Your task to perform on an android device: Go to Yahoo.com Image 0: 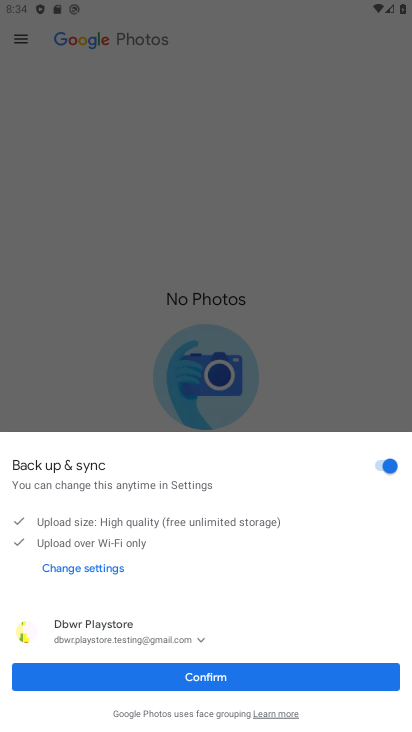
Step 0: press home button
Your task to perform on an android device: Go to Yahoo.com Image 1: 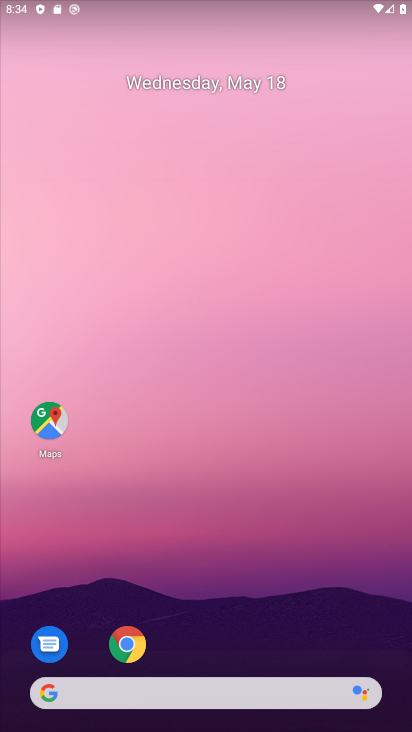
Step 1: click (228, 701)
Your task to perform on an android device: Go to Yahoo.com Image 2: 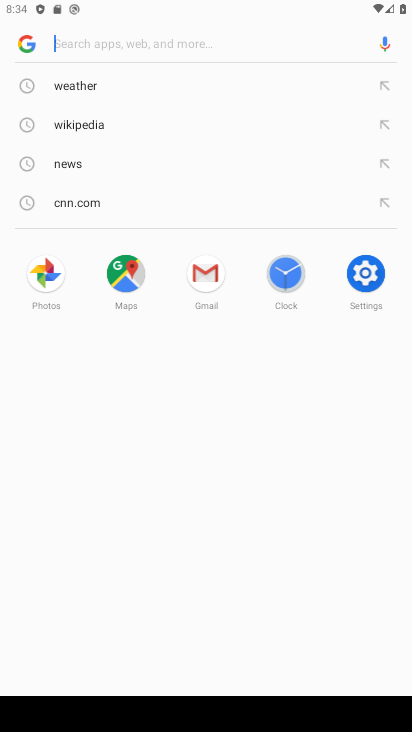
Step 2: type "Yahoo.com"
Your task to perform on an android device: Go to Yahoo.com Image 3: 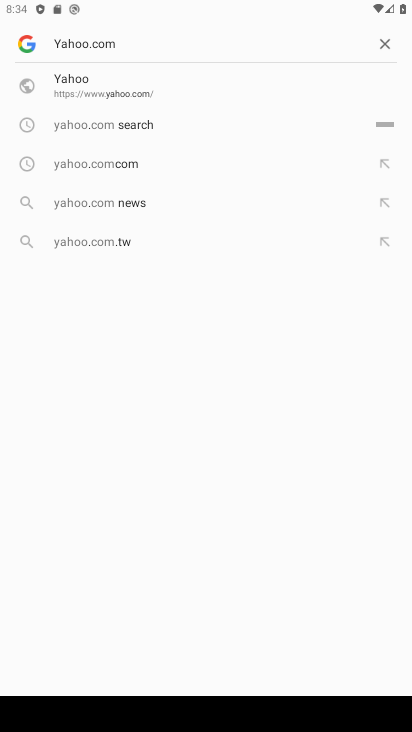
Step 3: click (122, 88)
Your task to perform on an android device: Go to Yahoo.com Image 4: 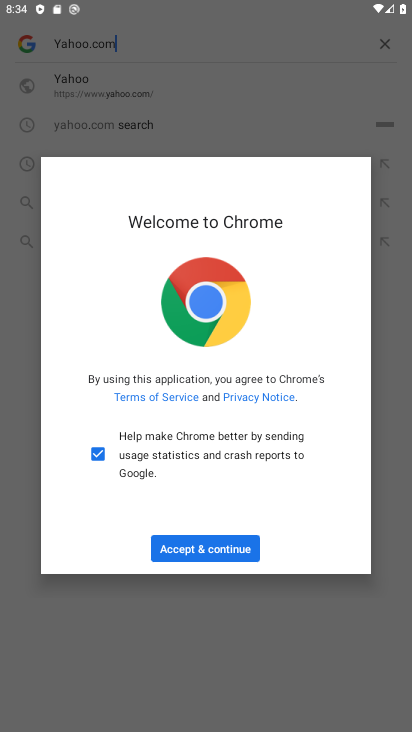
Step 4: click (197, 555)
Your task to perform on an android device: Go to Yahoo.com Image 5: 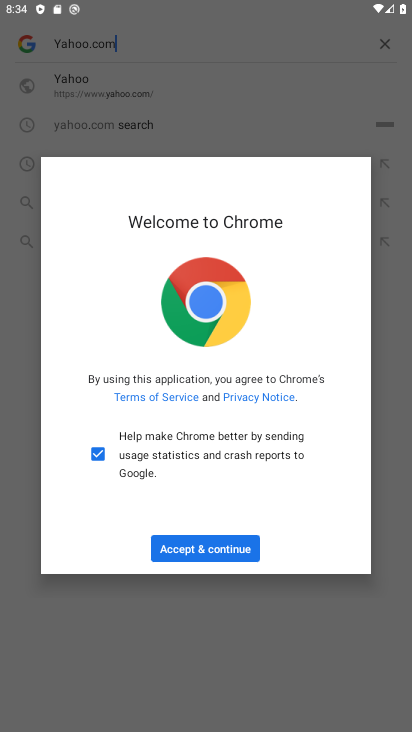
Step 5: click (197, 555)
Your task to perform on an android device: Go to Yahoo.com Image 6: 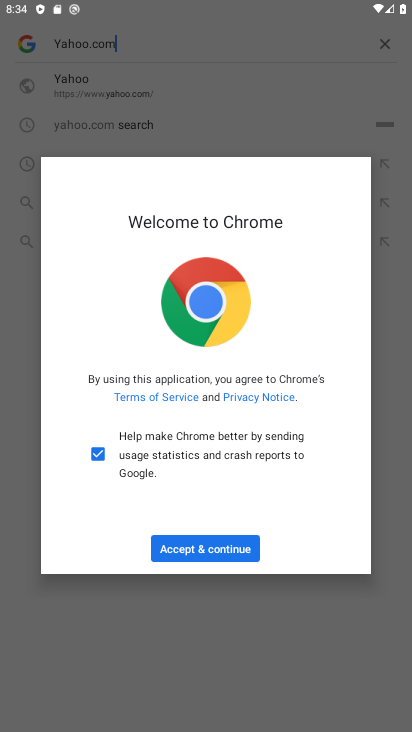
Step 6: click (197, 555)
Your task to perform on an android device: Go to Yahoo.com Image 7: 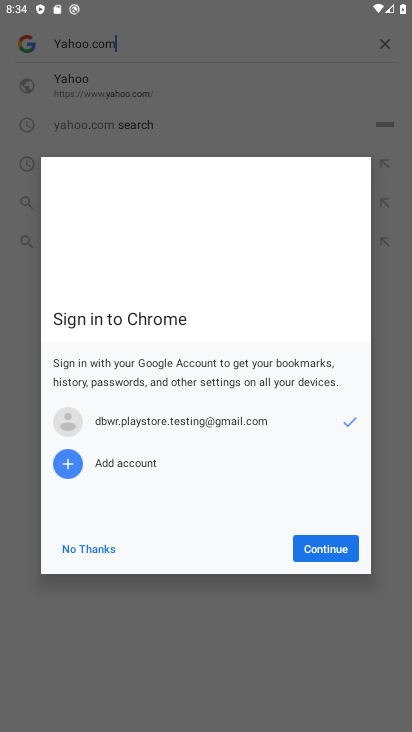
Step 7: click (312, 544)
Your task to perform on an android device: Go to Yahoo.com Image 8: 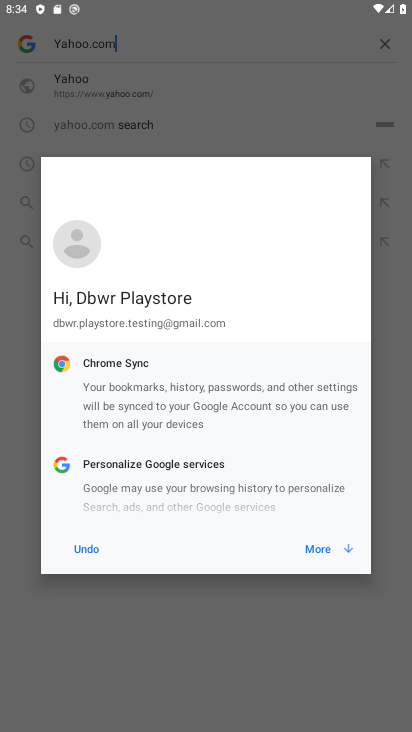
Step 8: click (312, 544)
Your task to perform on an android device: Go to Yahoo.com Image 9: 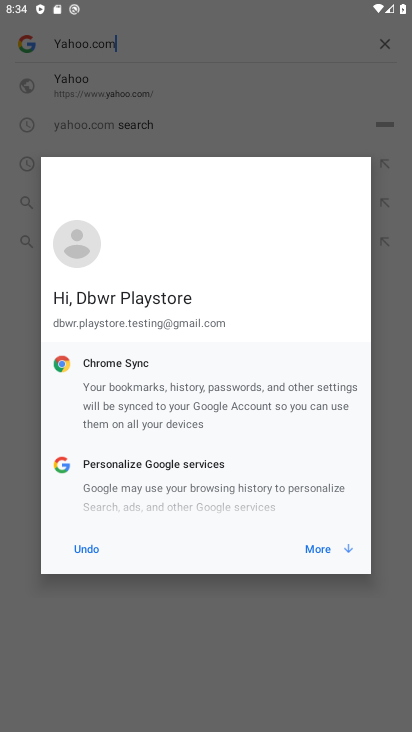
Step 9: click (312, 544)
Your task to perform on an android device: Go to Yahoo.com Image 10: 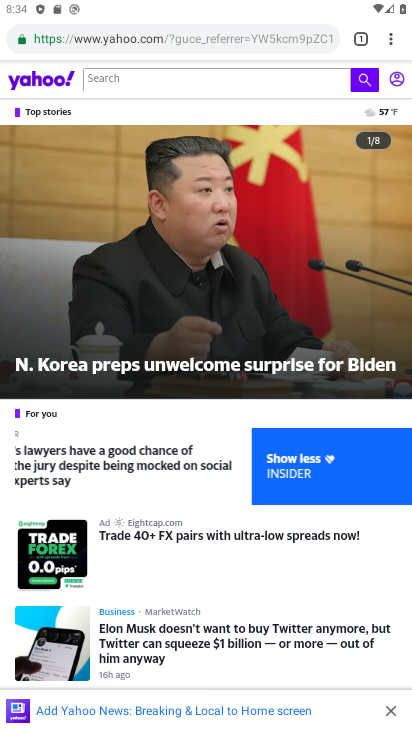
Step 10: task complete